Your task to perform on an android device: check data usage Image 0: 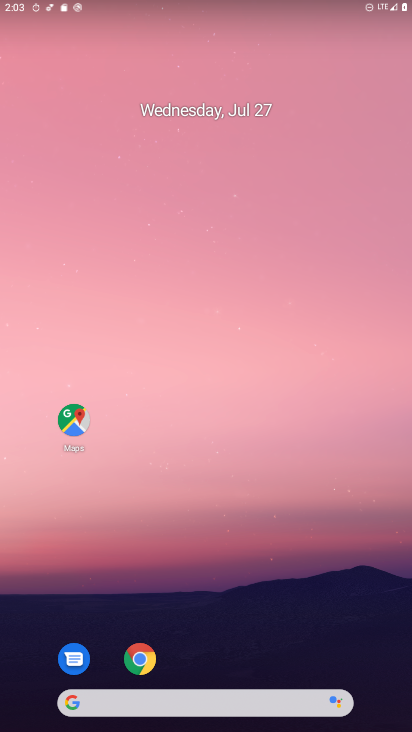
Step 0: drag from (306, 563) to (246, 38)
Your task to perform on an android device: check data usage Image 1: 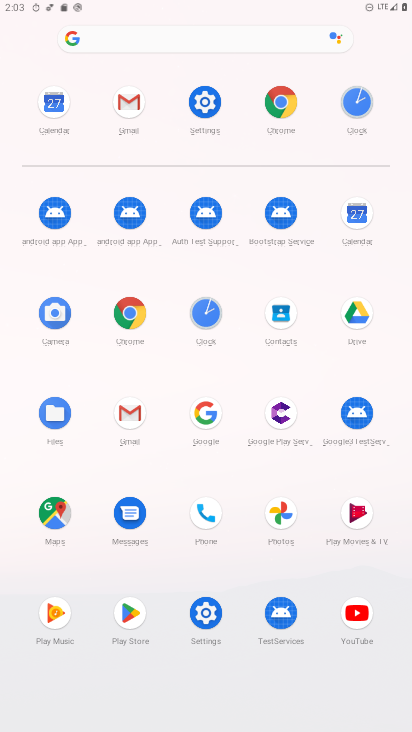
Step 1: click (211, 101)
Your task to perform on an android device: check data usage Image 2: 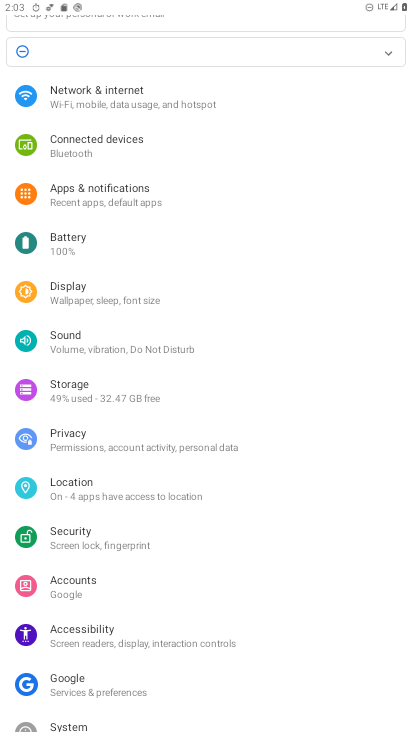
Step 2: click (102, 90)
Your task to perform on an android device: check data usage Image 3: 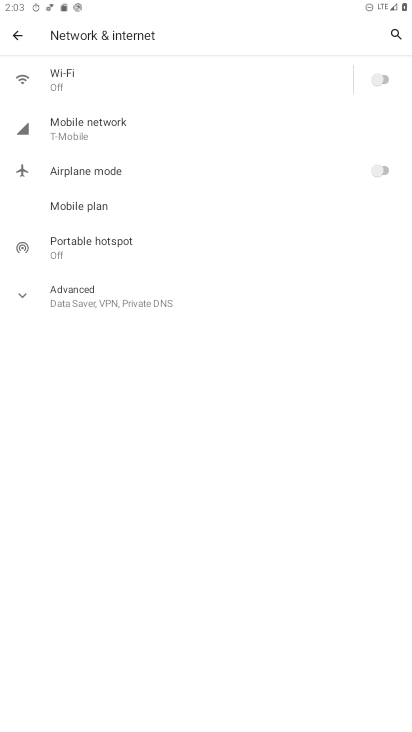
Step 3: click (127, 122)
Your task to perform on an android device: check data usage Image 4: 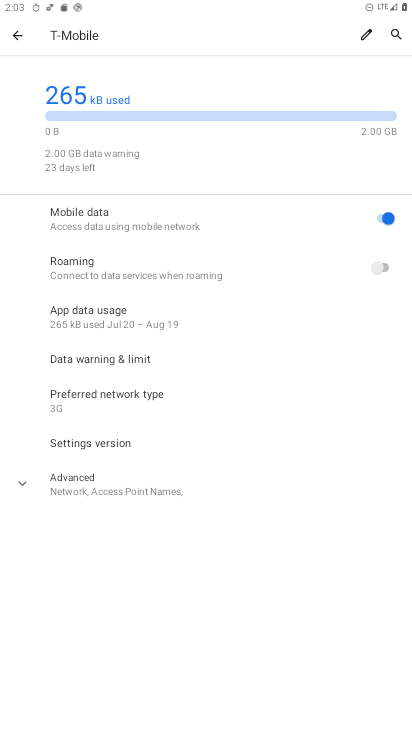
Step 4: task complete